Your task to perform on an android device: open app "Speedtest by Ookla" (install if not already installed) and go to login screen Image 0: 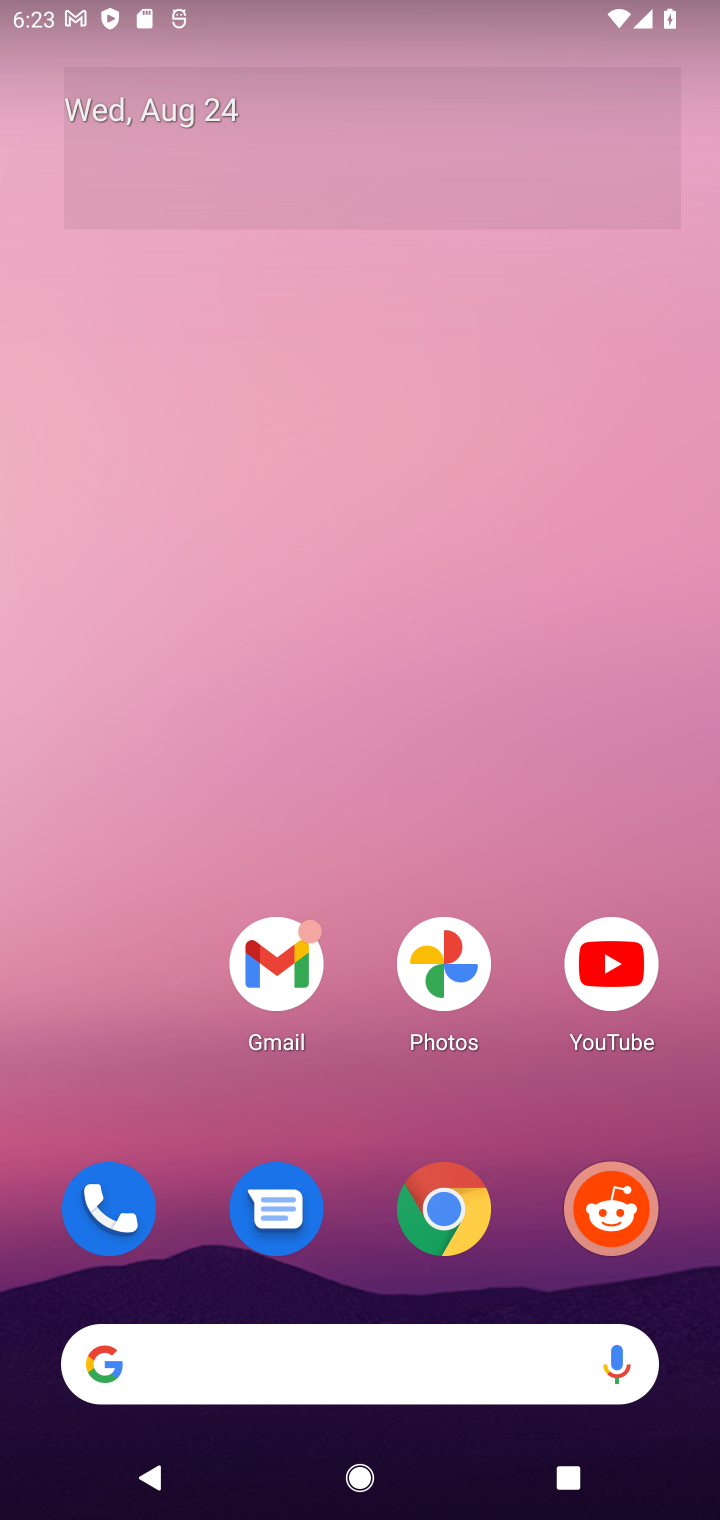
Step 0: drag from (308, 1247) to (401, 11)
Your task to perform on an android device: open app "Speedtest by Ookla" (install if not already installed) and go to login screen Image 1: 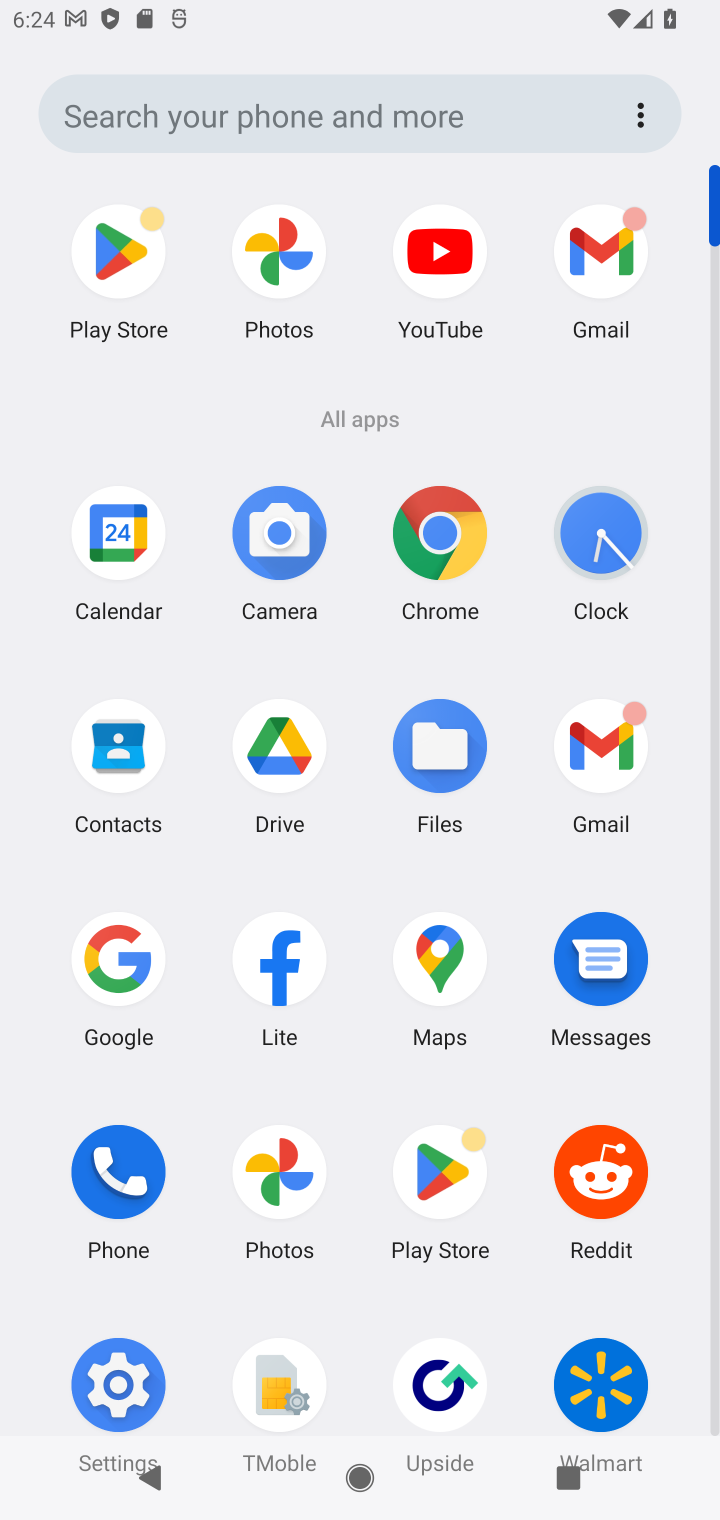
Step 1: click (424, 1166)
Your task to perform on an android device: open app "Speedtest by Ookla" (install if not already installed) and go to login screen Image 2: 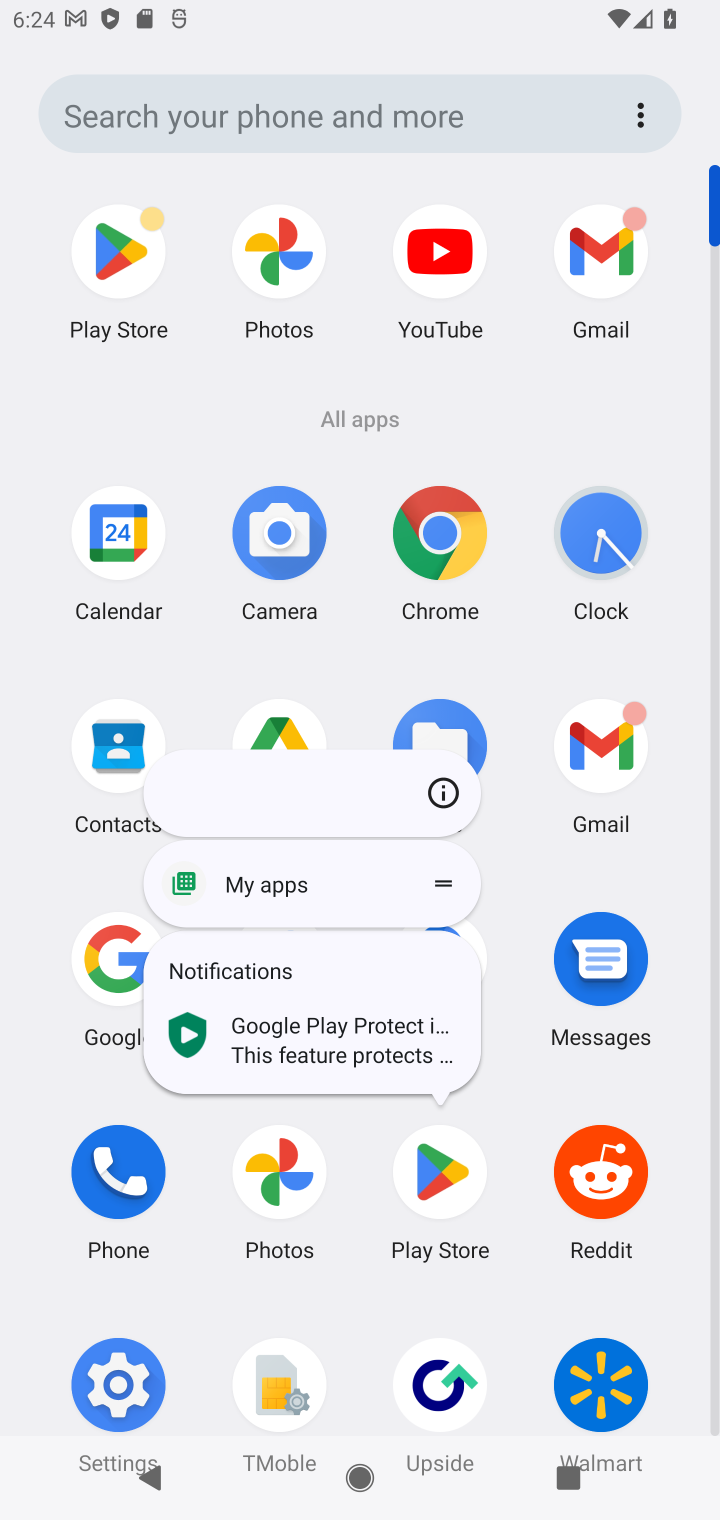
Step 2: drag from (404, 1155) to (455, 538)
Your task to perform on an android device: open app "Speedtest by Ookla" (install if not already installed) and go to login screen Image 3: 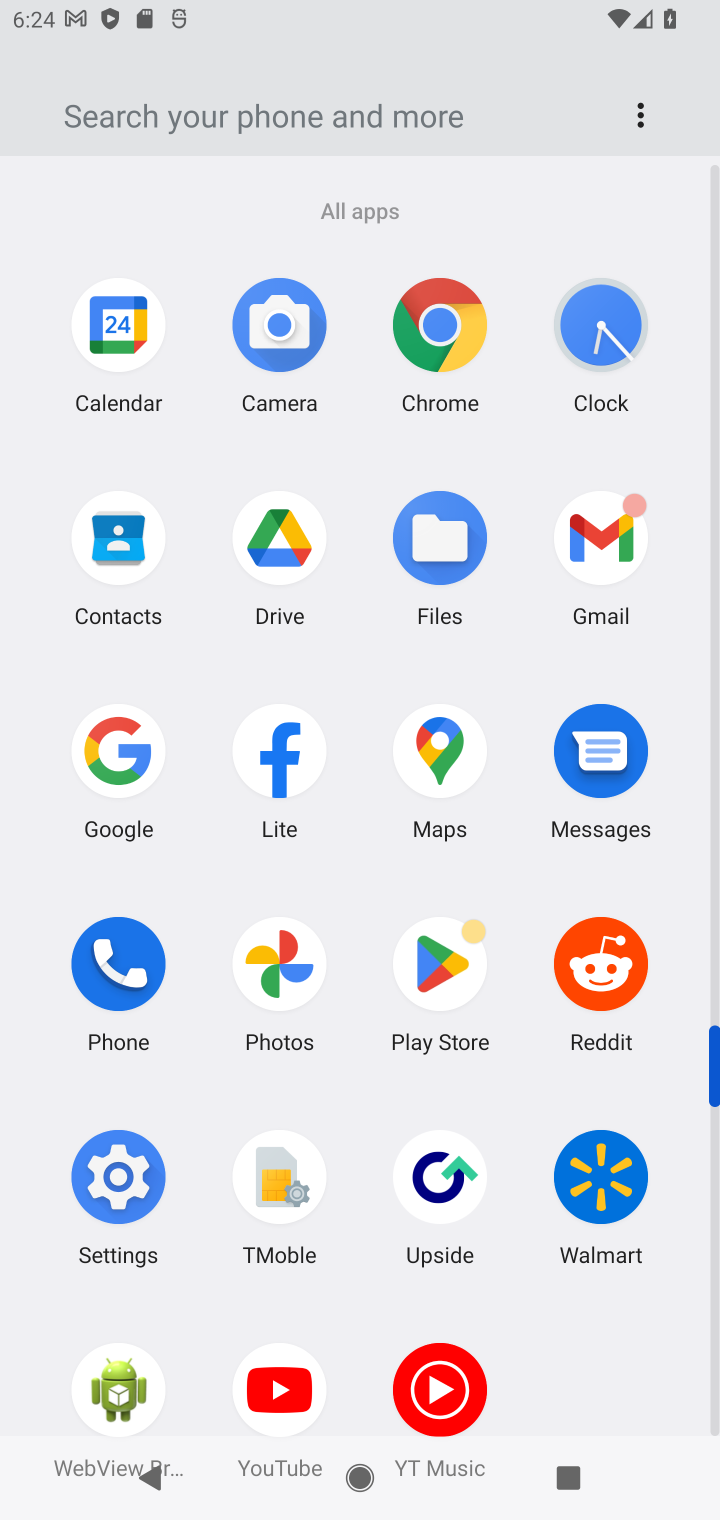
Step 3: drag from (356, 1184) to (456, 436)
Your task to perform on an android device: open app "Speedtest by Ookla" (install if not already installed) and go to login screen Image 4: 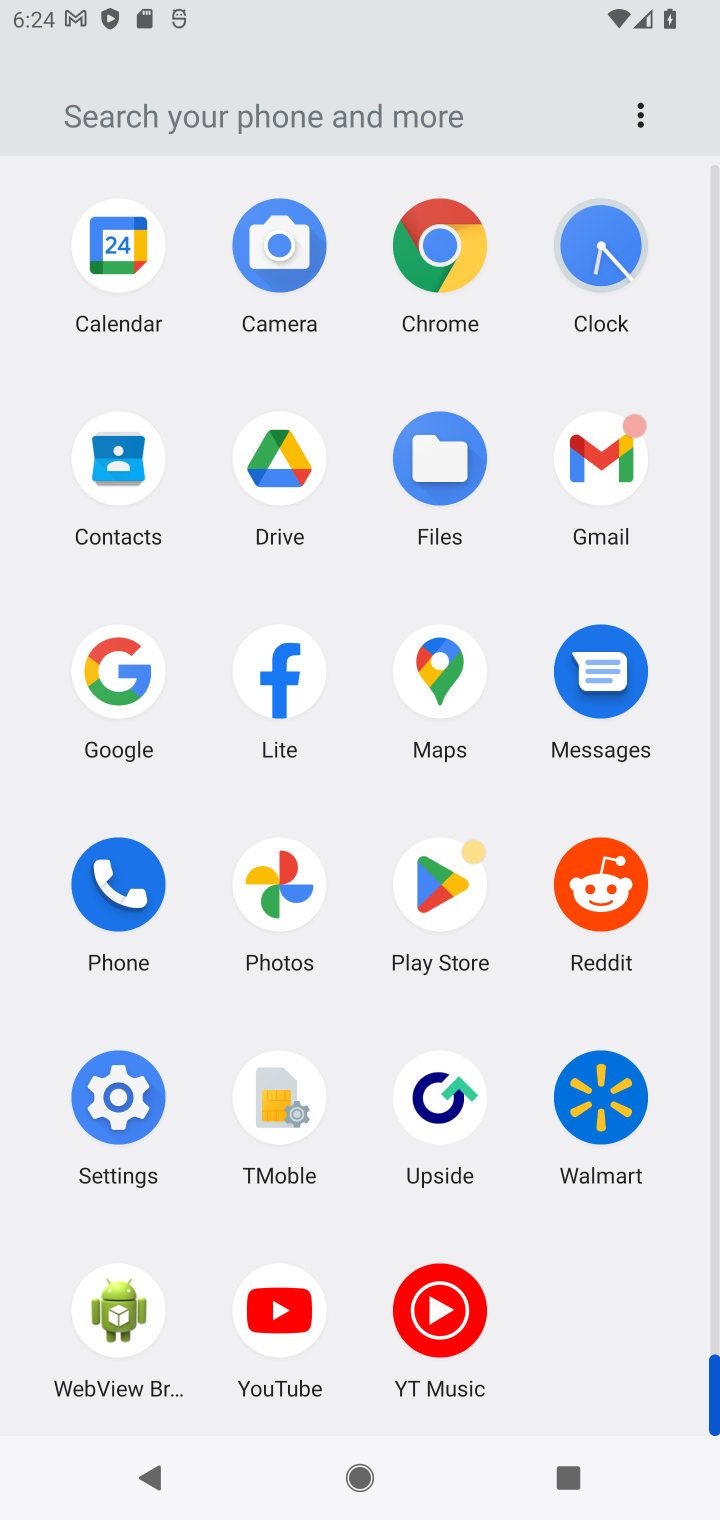
Step 4: click (413, 870)
Your task to perform on an android device: open app "Speedtest by Ookla" (install if not already installed) and go to login screen Image 5: 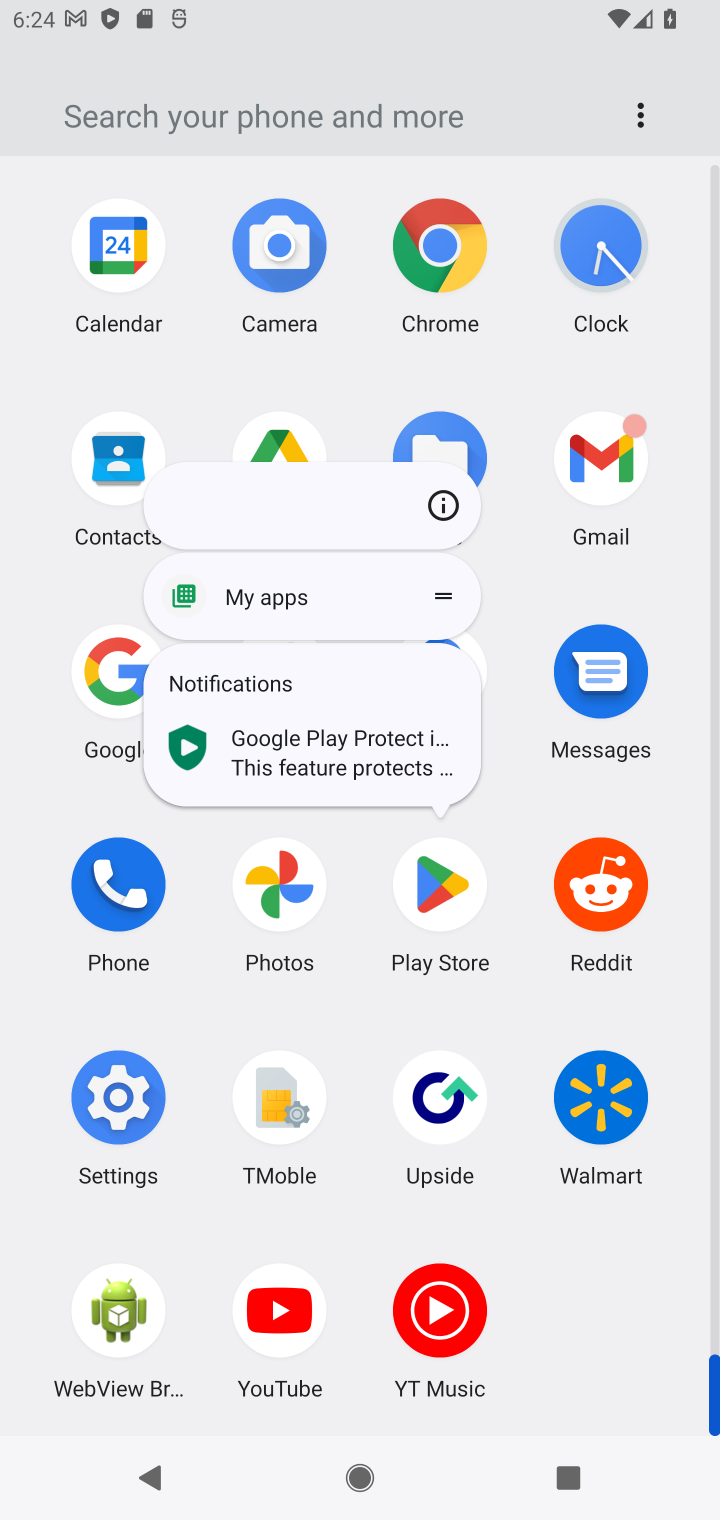
Step 5: click (419, 885)
Your task to perform on an android device: open app "Speedtest by Ookla" (install if not already installed) and go to login screen Image 6: 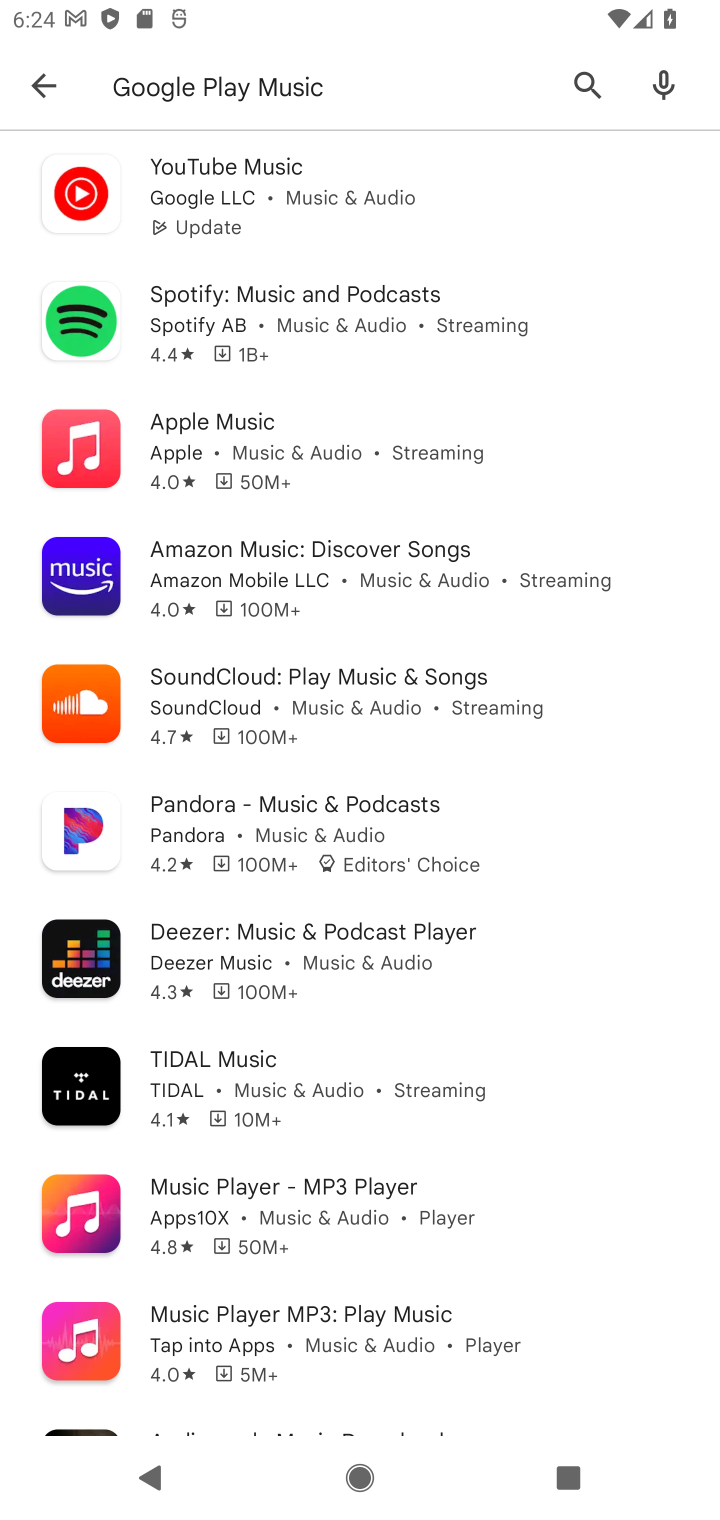
Step 6: press back button
Your task to perform on an android device: open app "Speedtest by Ookla" (install if not already installed) and go to login screen Image 7: 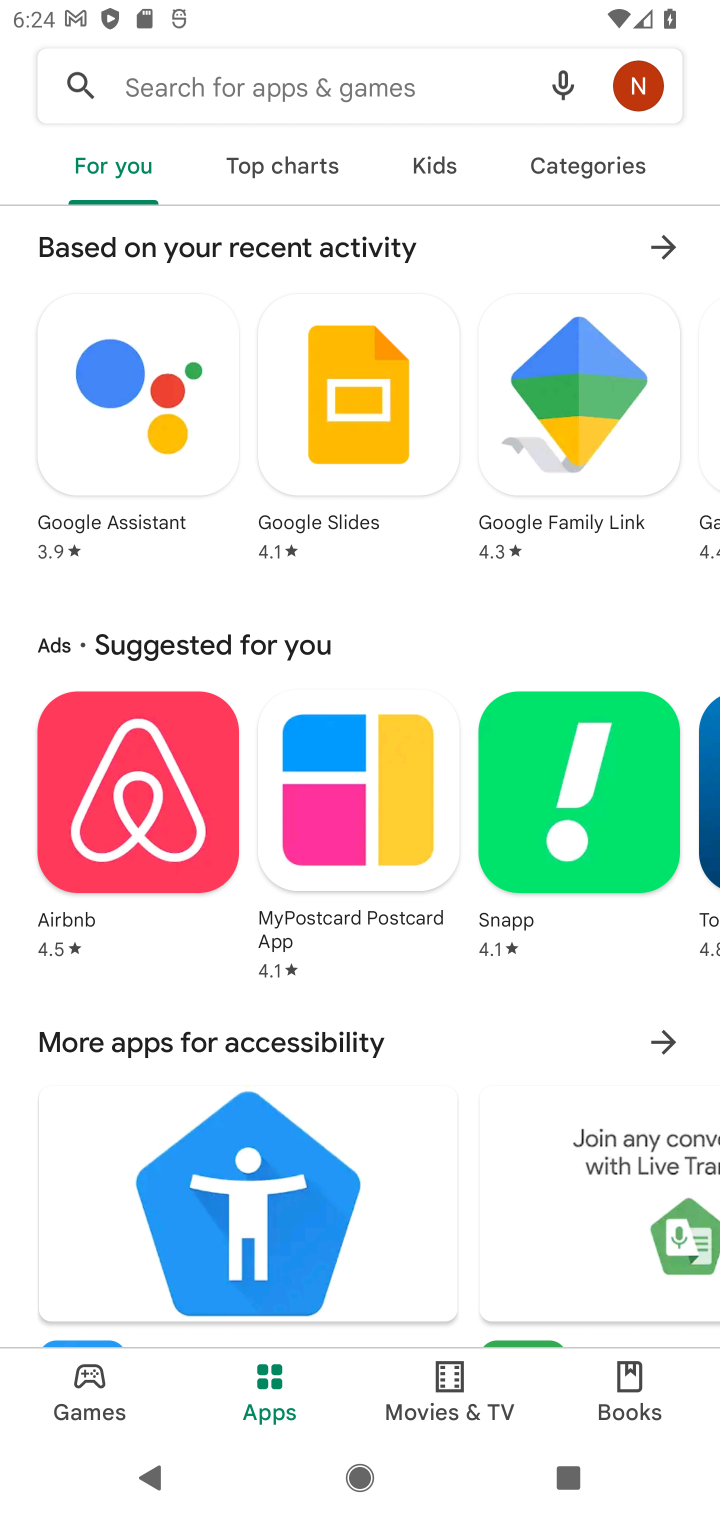
Step 7: click (274, 111)
Your task to perform on an android device: open app "Speedtest by Ookla" (install if not already installed) and go to login screen Image 8: 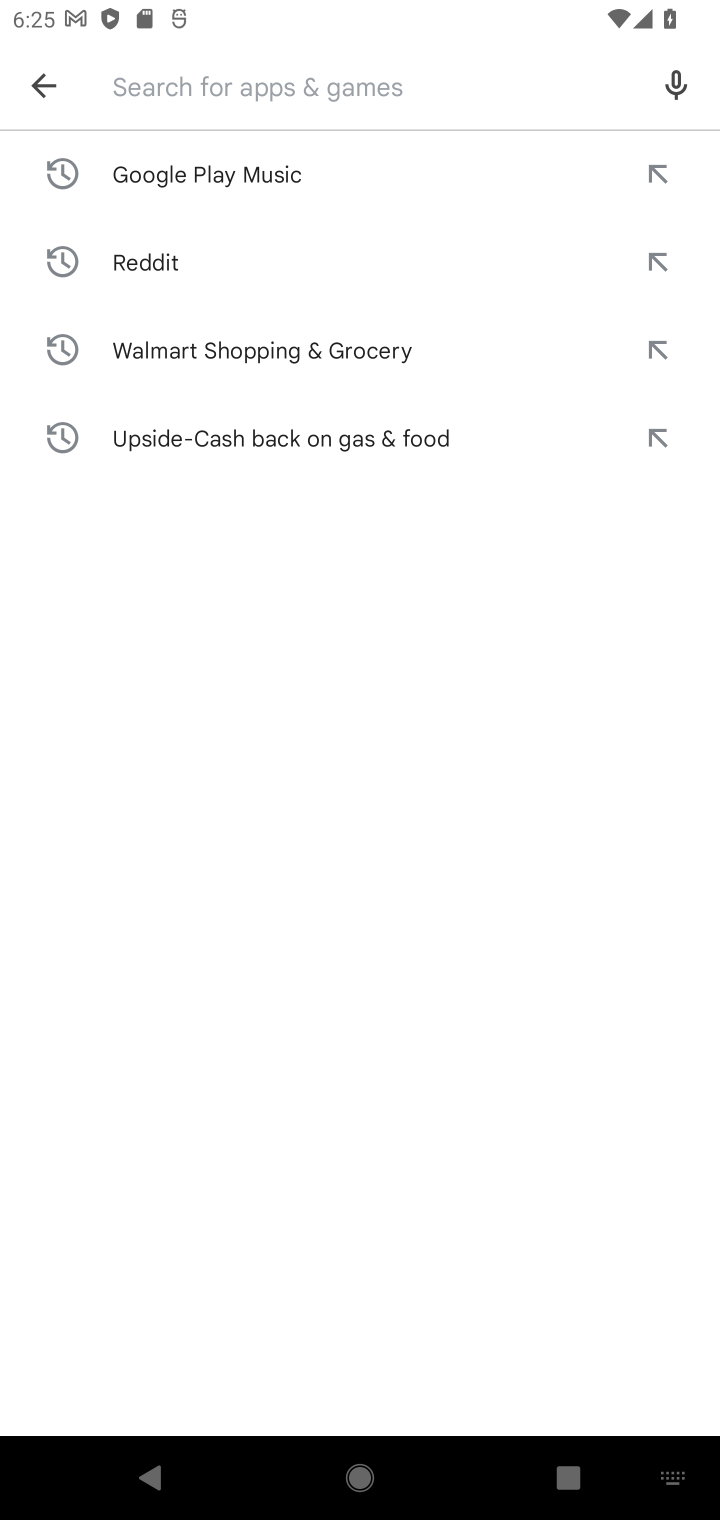
Step 8: type "Speedtest by Ookla"
Your task to perform on an android device: open app "Speedtest by Ookla" (install if not already installed) and go to login screen Image 9: 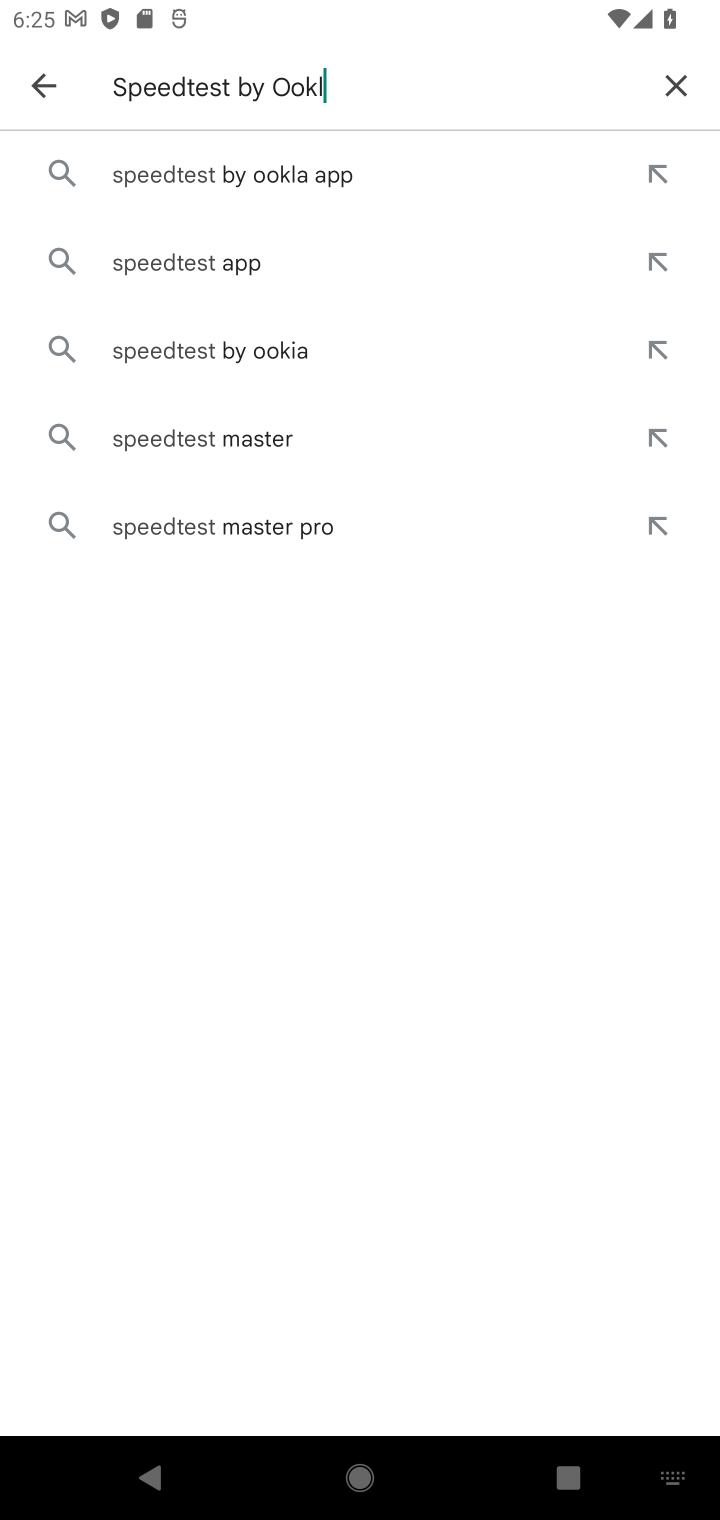
Step 9: press enter
Your task to perform on an android device: open app "Speedtest by Ookla" (install if not already installed) and go to login screen Image 10: 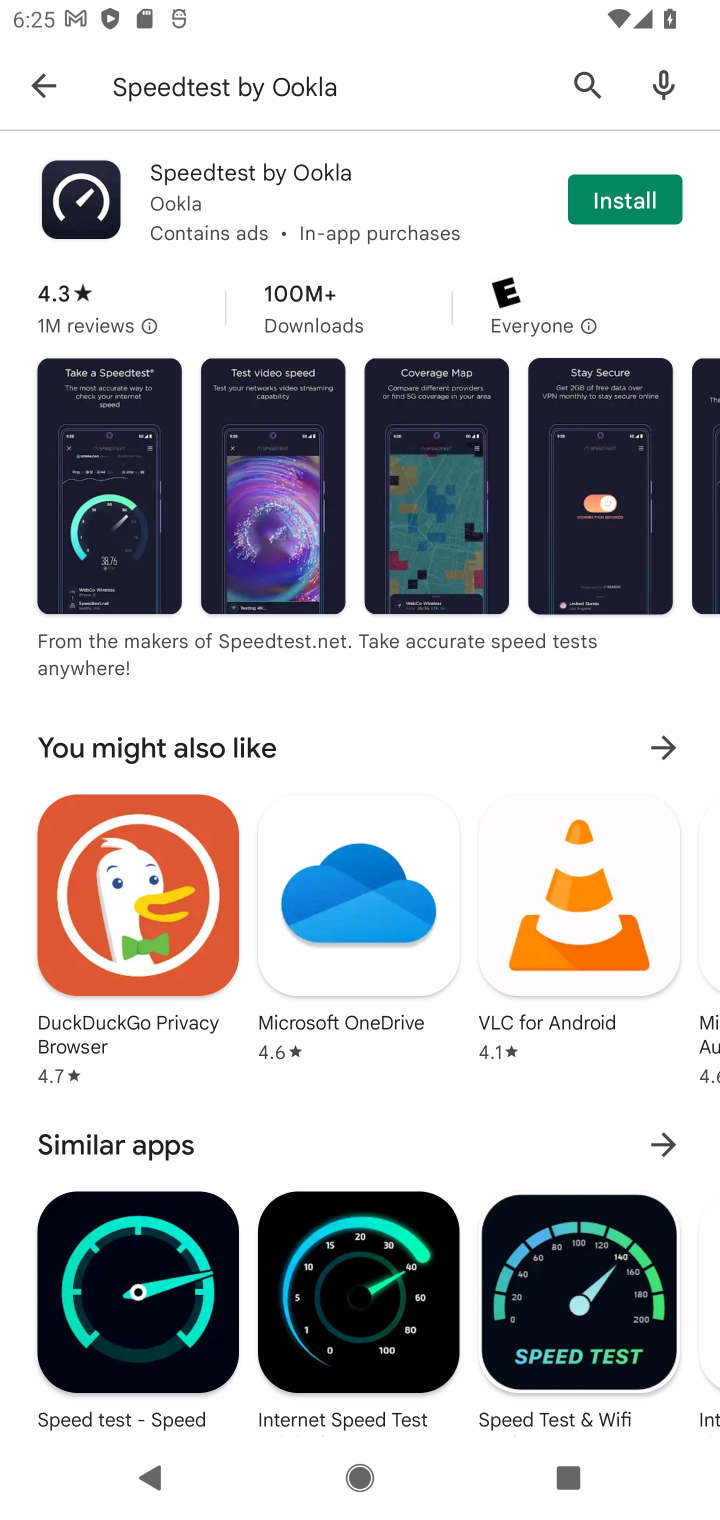
Step 10: click (646, 226)
Your task to perform on an android device: open app "Speedtest by Ookla" (install if not already installed) and go to login screen Image 11: 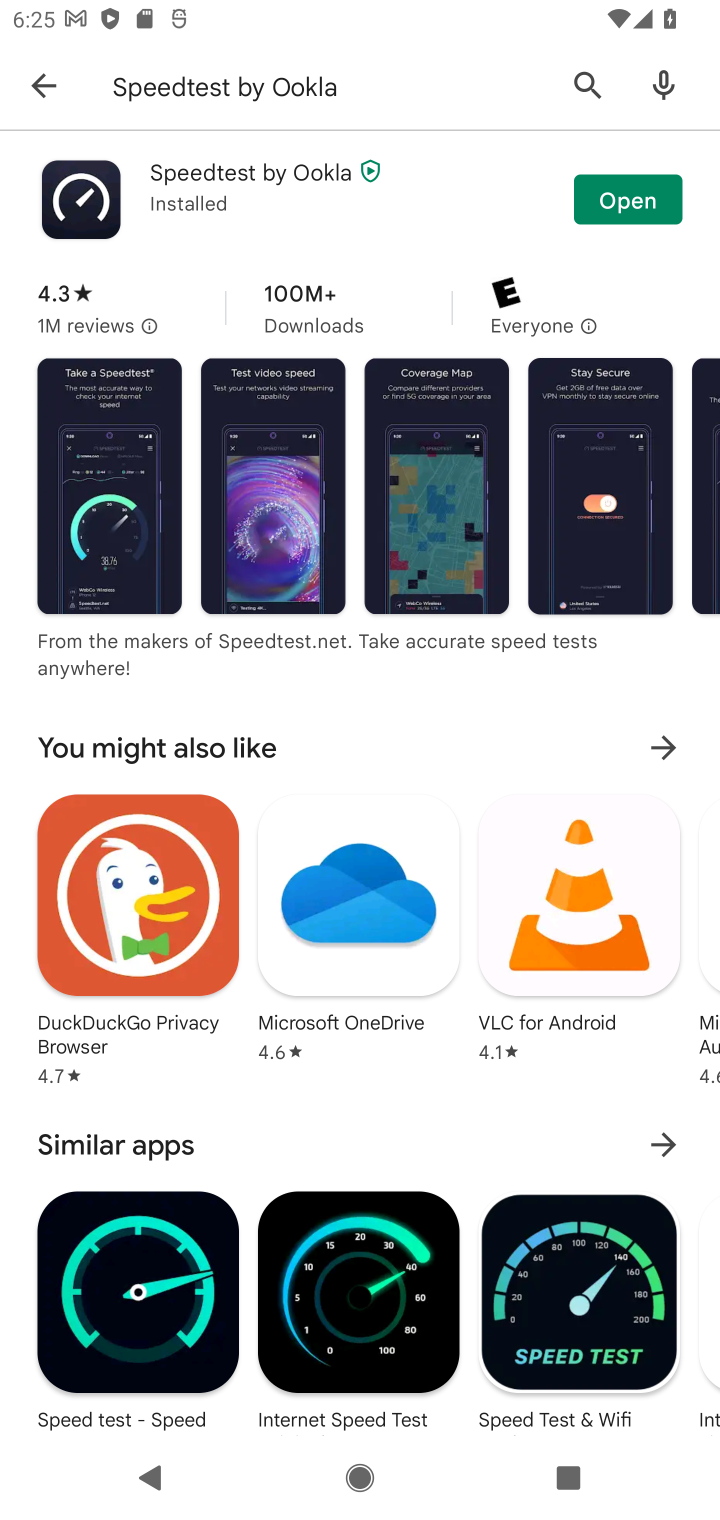
Step 11: click (662, 208)
Your task to perform on an android device: open app "Speedtest by Ookla" (install if not already installed) and go to login screen Image 12: 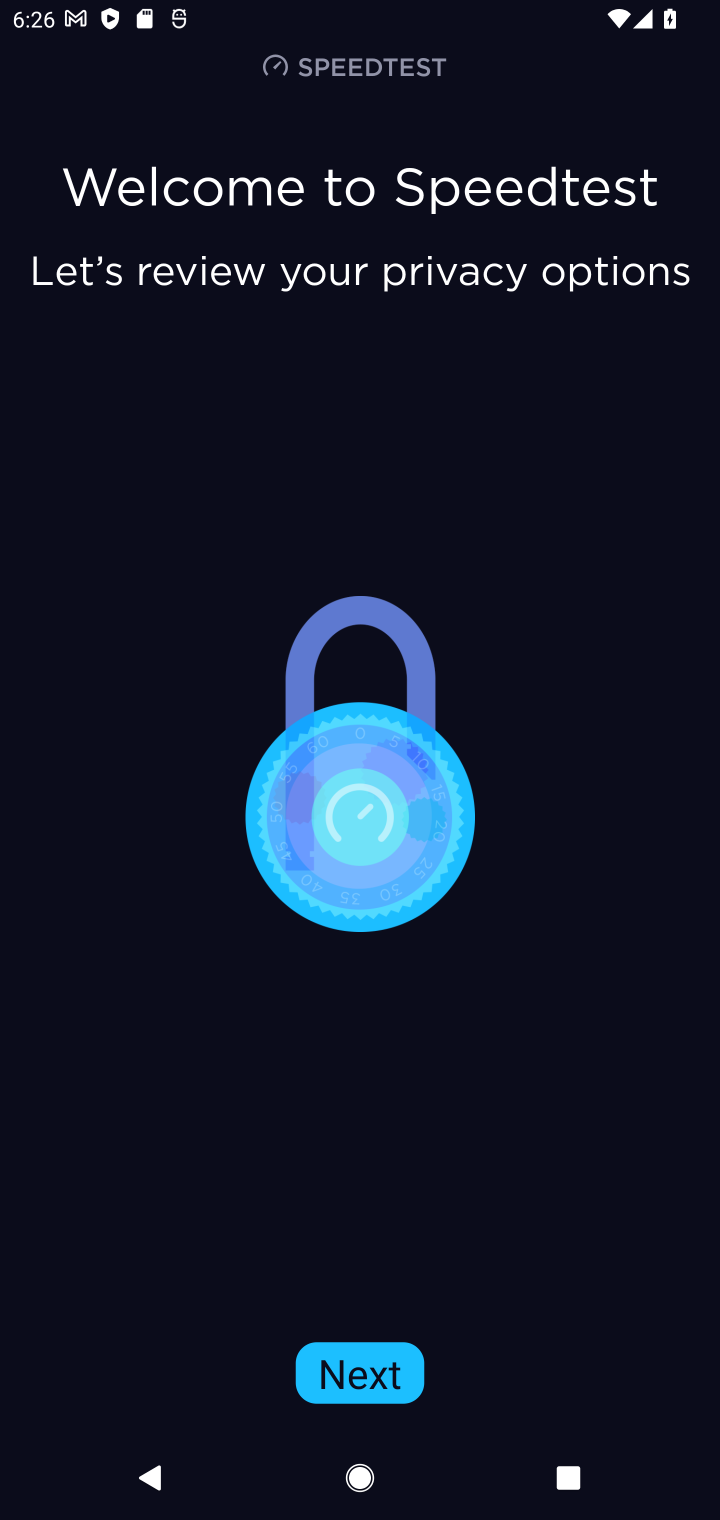
Step 12: click (379, 1402)
Your task to perform on an android device: open app "Speedtest by Ookla" (install if not already installed) and go to login screen Image 13: 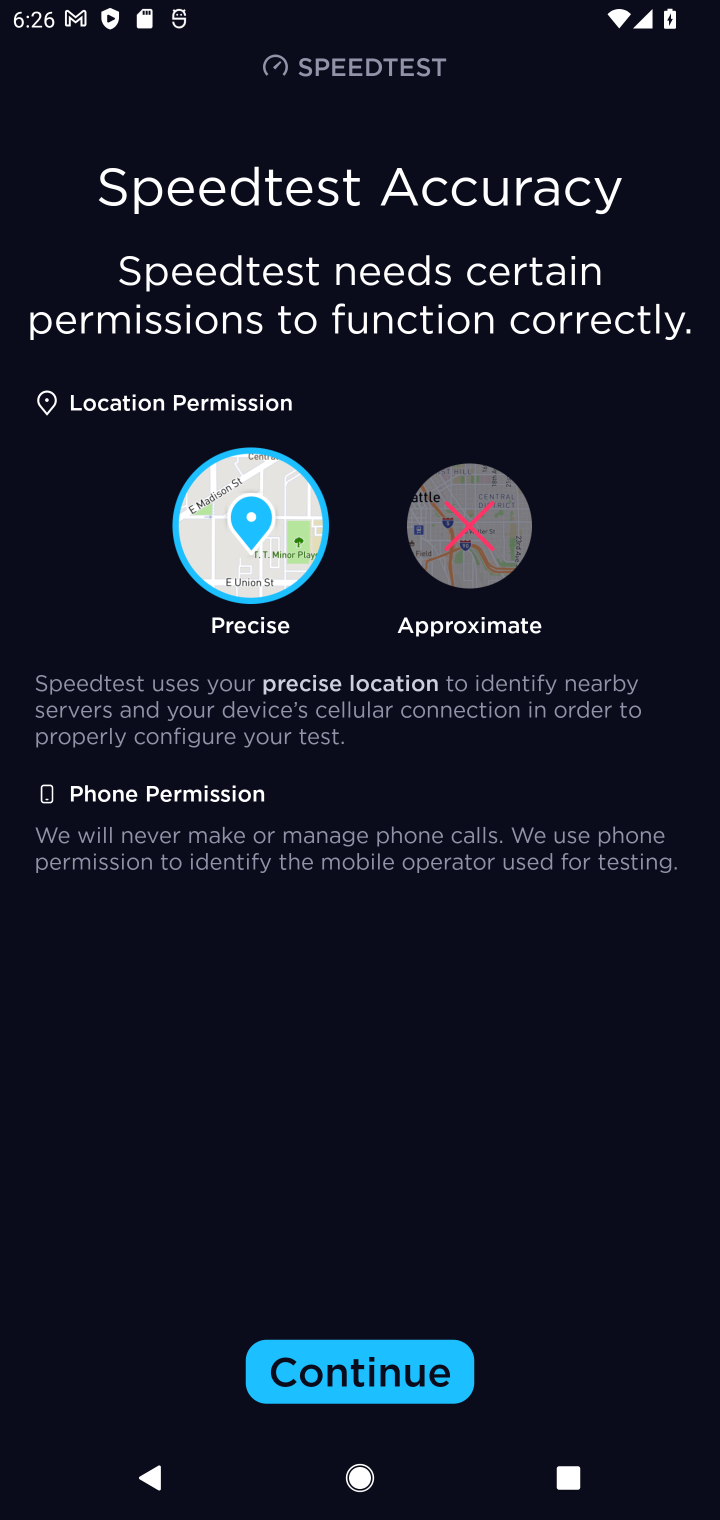
Step 13: click (362, 1389)
Your task to perform on an android device: open app "Speedtest by Ookla" (install if not already installed) and go to login screen Image 14: 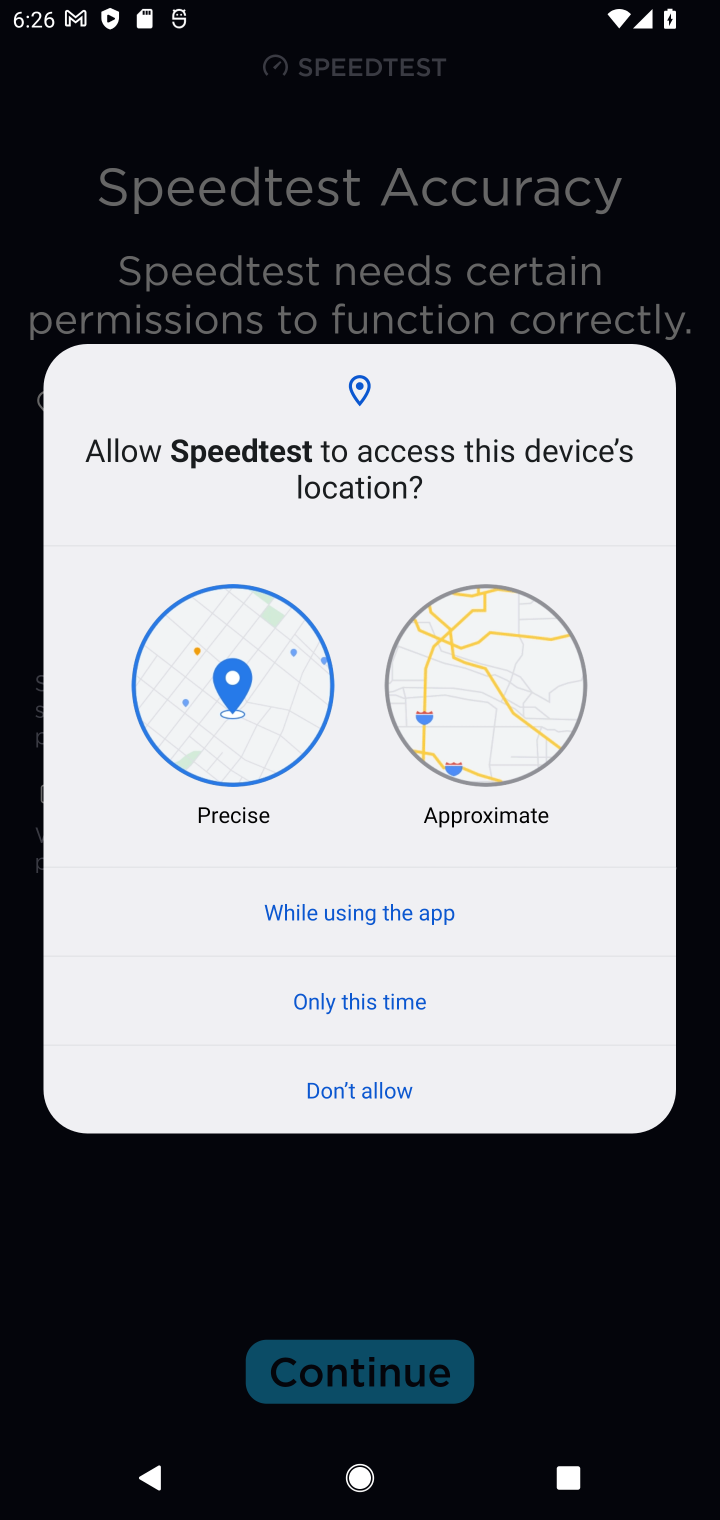
Step 14: click (426, 926)
Your task to perform on an android device: open app "Speedtest by Ookla" (install if not already installed) and go to login screen Image 15: 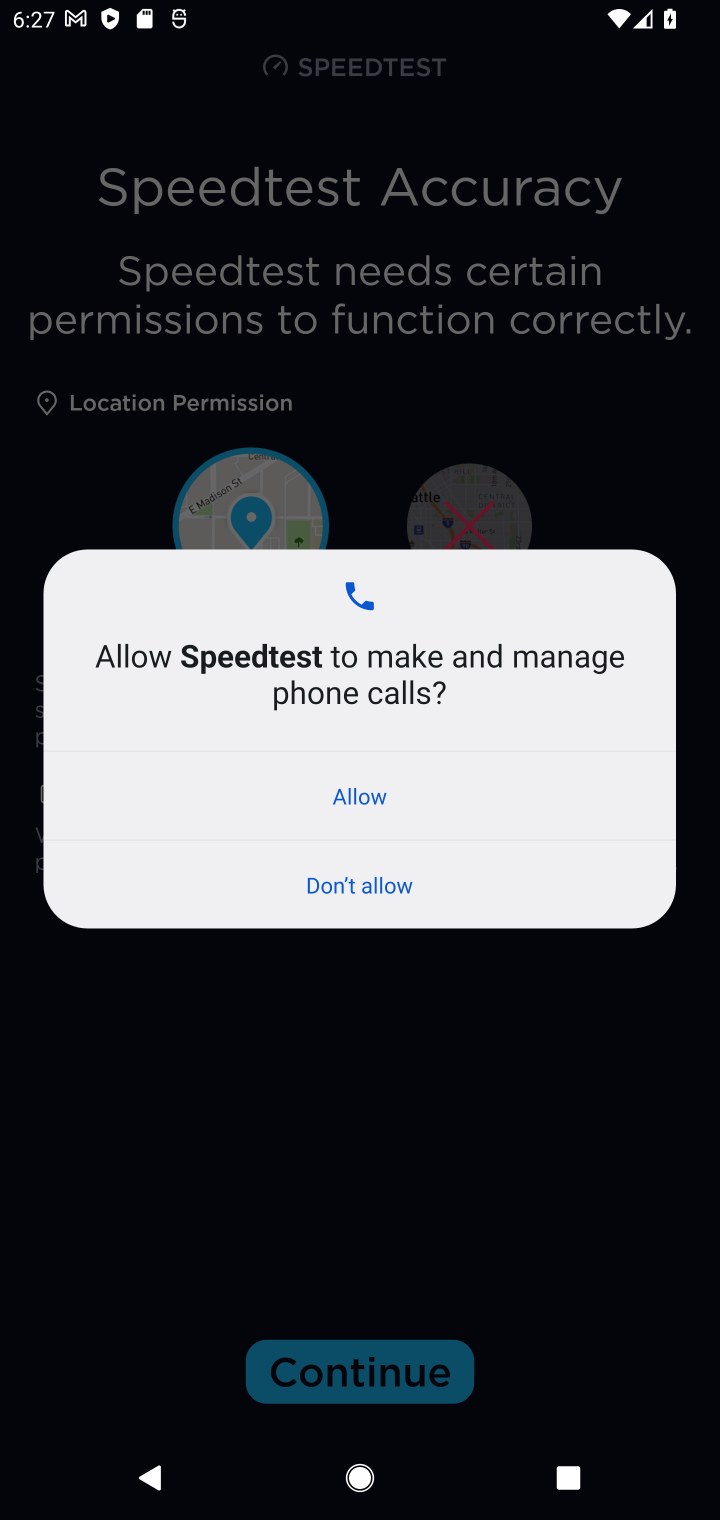
Step 15: click (379, 810)
Your task to perform on an android device: open app "Speedtest by Ookla" (install if not already installed) and go to login screen Image 16: 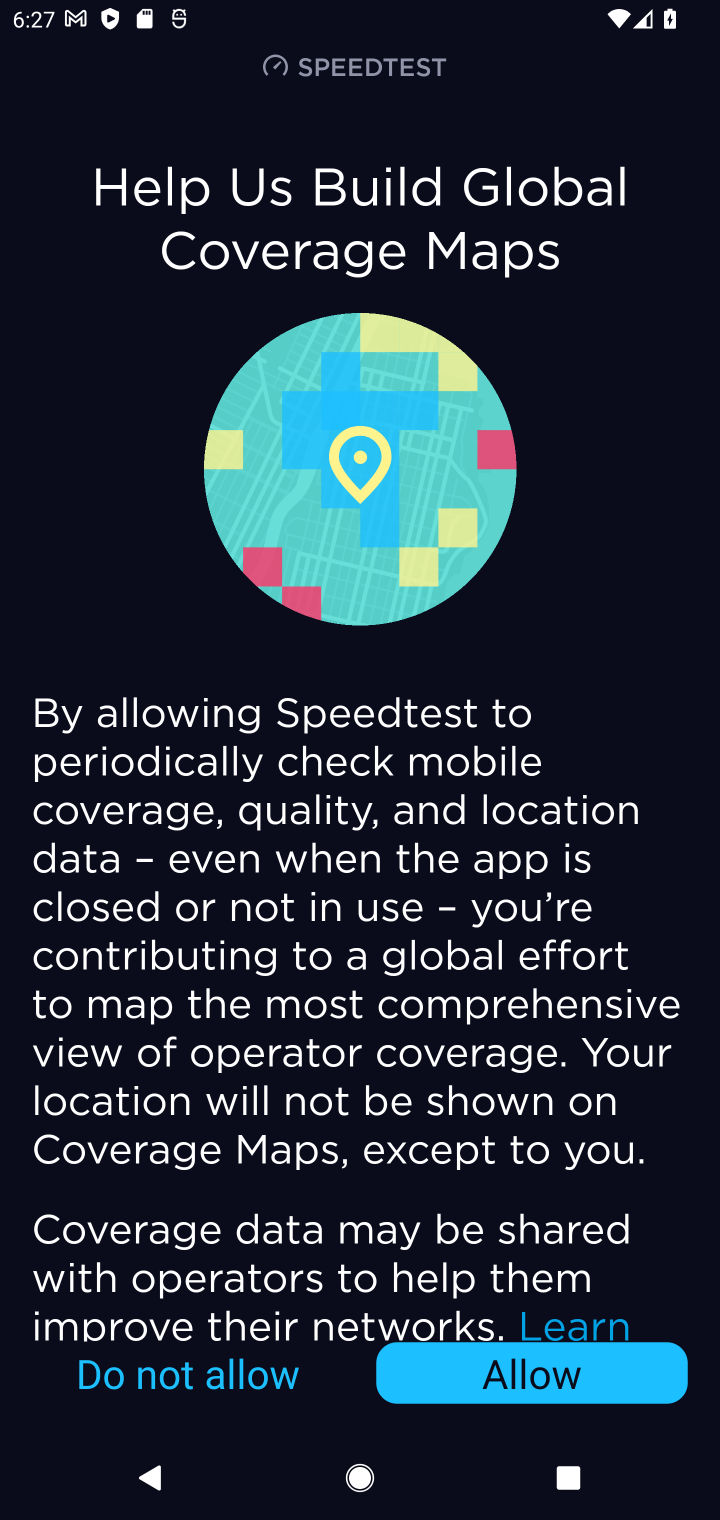
Step 16: click (545, 1369)
Your task to perform on an android device: open app "Speedtest by Ookla" (install if not already installed) and go to login screen Image 17: 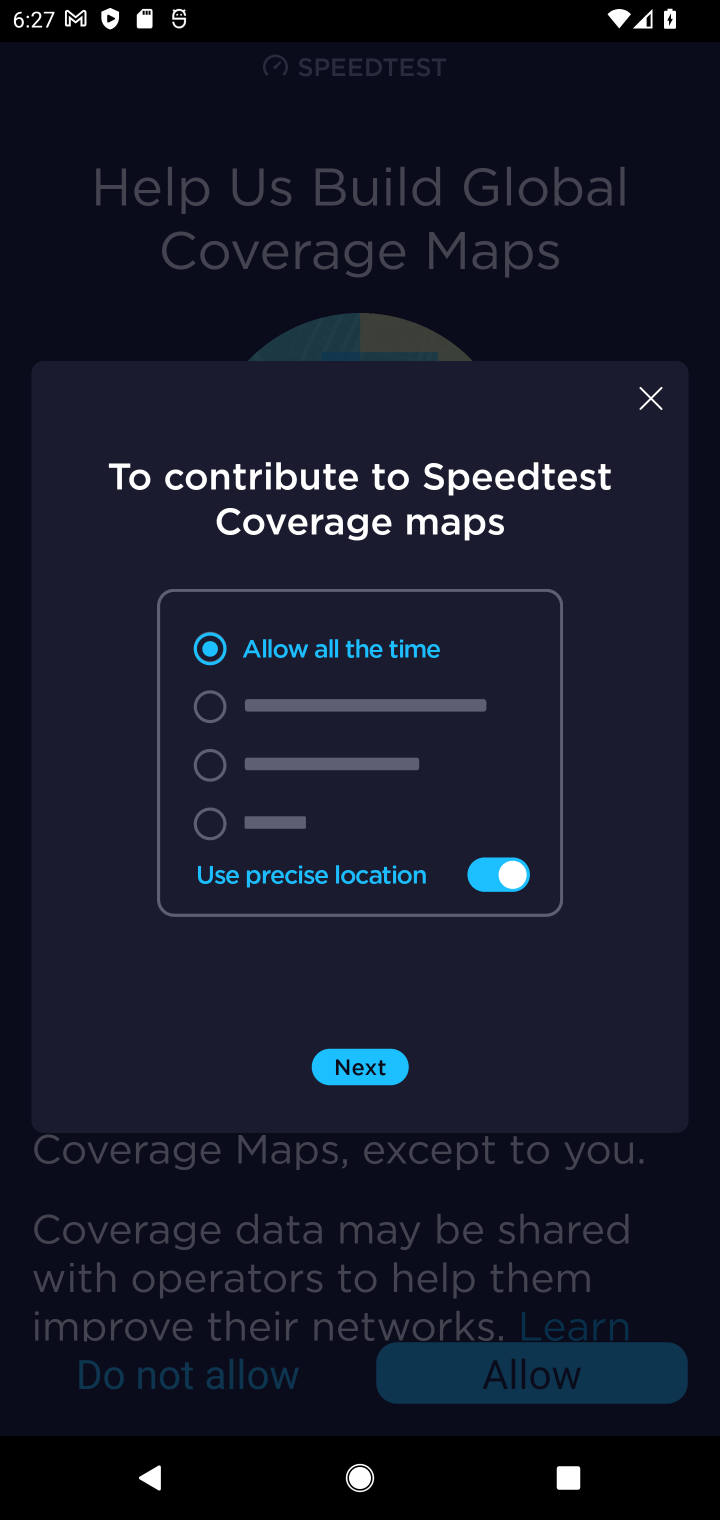
Step 17: click (377, 1074)
Your task to perform on an android device: open app "Speedtest by Ookla" (install if not already installed) and go to login screen Image 18: 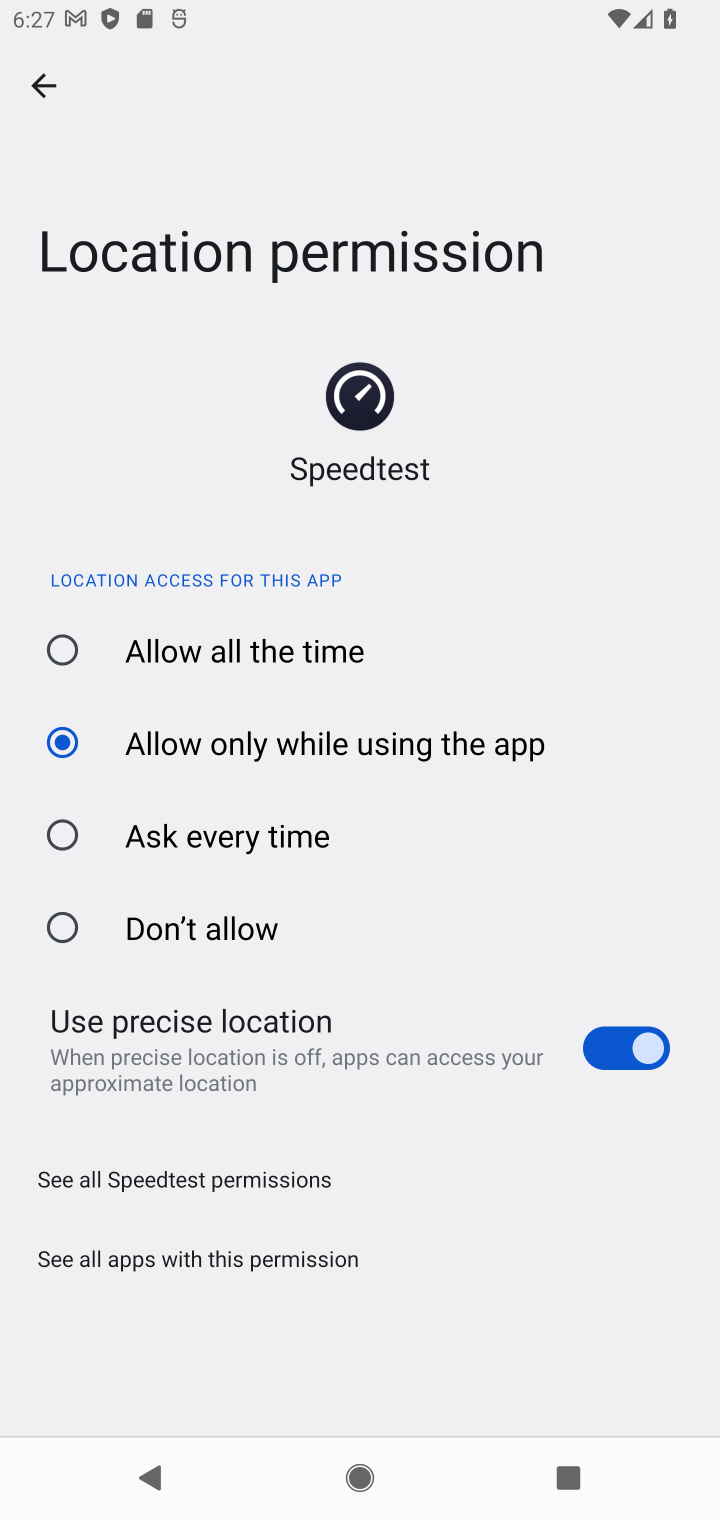
Step 18: task complete